Your task to perform on an android device: When is my next meeting? Image 0: 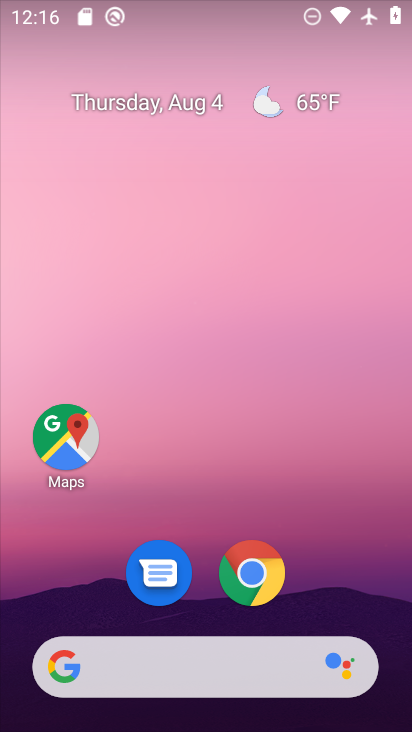
Step 0: drag from (348, 584) to (344, 65)
Your task to perform on an android device: When is my next meeting? Image 1: 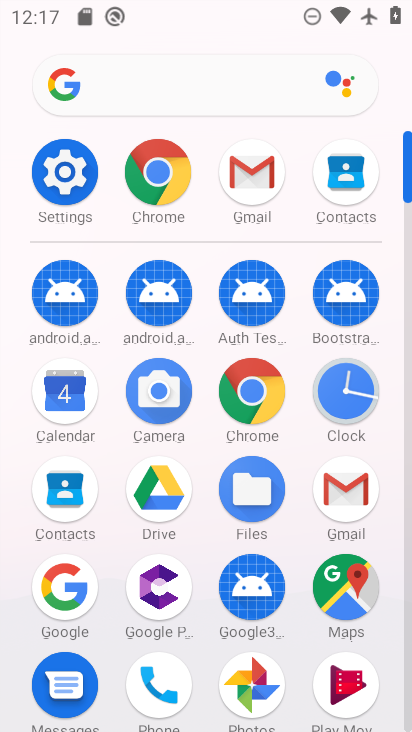
Step 1: click (54, 402)
Your task to perform on an android device: When is my next meeting? Image 2: 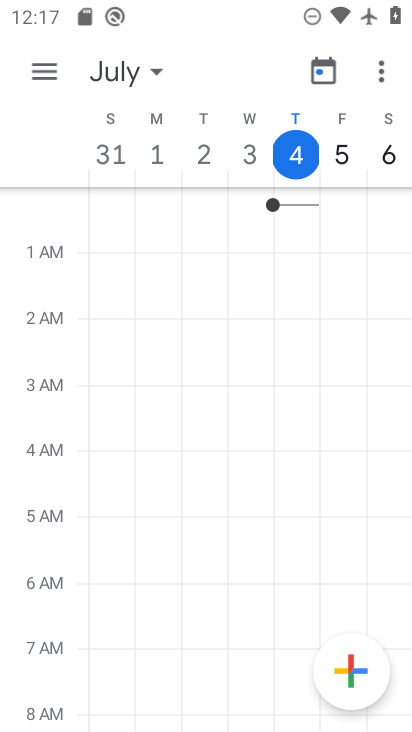
Step 2: task complete